Your task to perform on an android device: stop showing notifications on the lock screen Image 0: 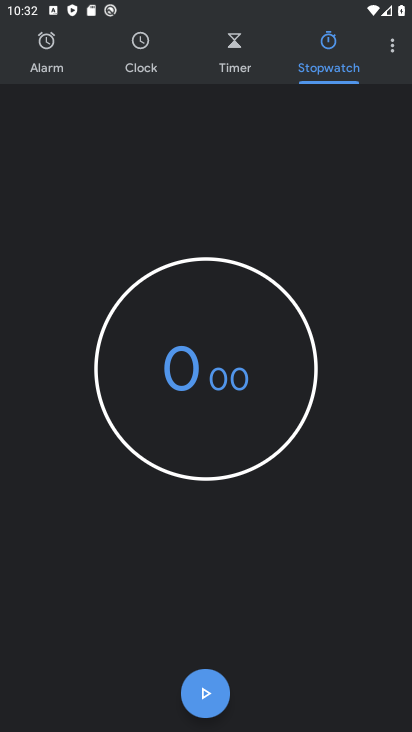
Step 0: press home button
Your task to perform on an android device: stop showing notifications on the lock screen Image 1: 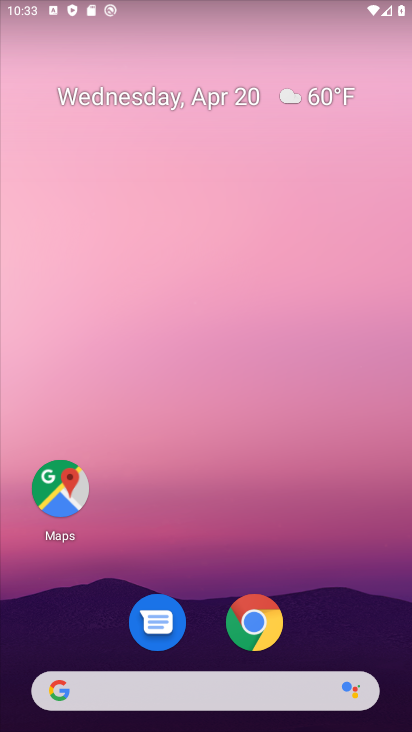
Step 1: drag from (369, 539) to (316, 125)
Your task to perform on an android device: stop showing notifications on the lock screen Image 2: 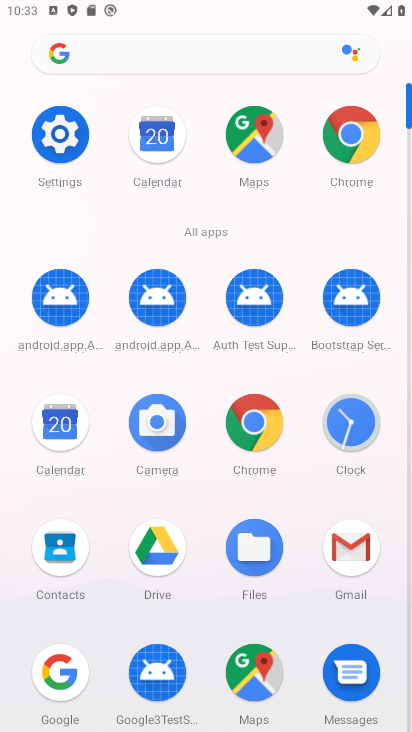
Step 2: click (64, 136)
Your task to perform on an android device: stop showing notifications on the lock screen Image 3: 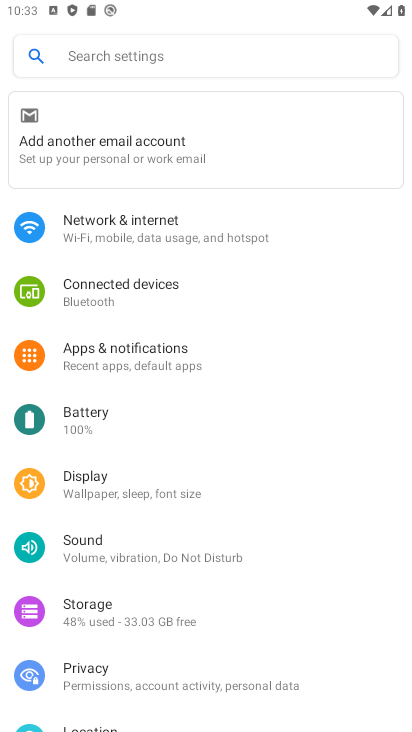
Step 3: click (118, 368)
Your task to perform on an android device: stop showing notifications on the lock screen Image 4: 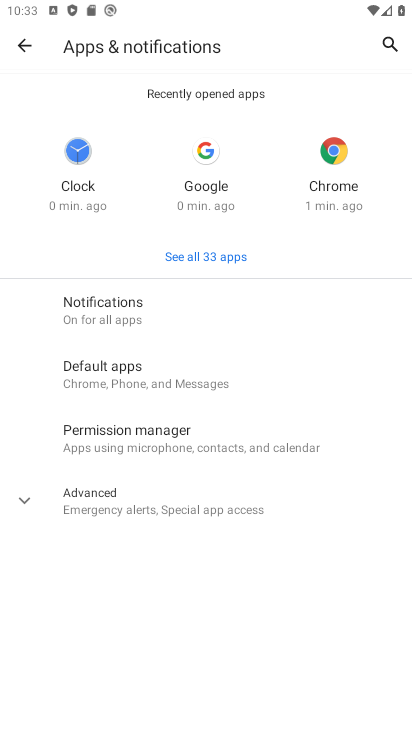
Step 4: click (113, 298)
Your task to perform on an android device: stop showing notifications on the lock screen Image 5: 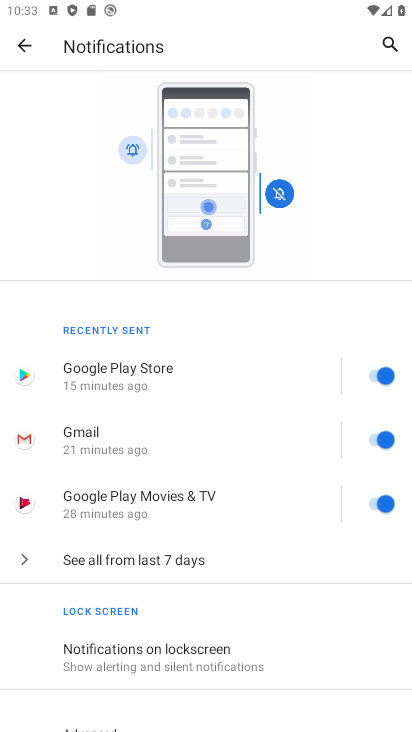
Step 5: drag from (200, 613) to (174, 277)
Your task to perform on an android device: stop showing notifications on the lock screen Image 6: 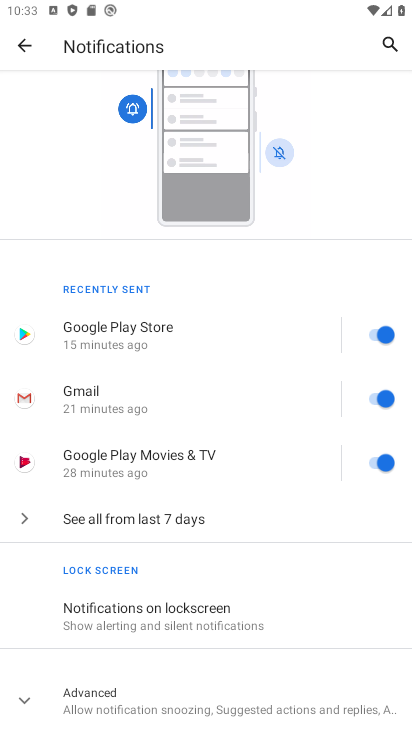
Step 6: click (131, 615)
Your task to perform on an android device: stop showing notifications on the lock screen Image 7: 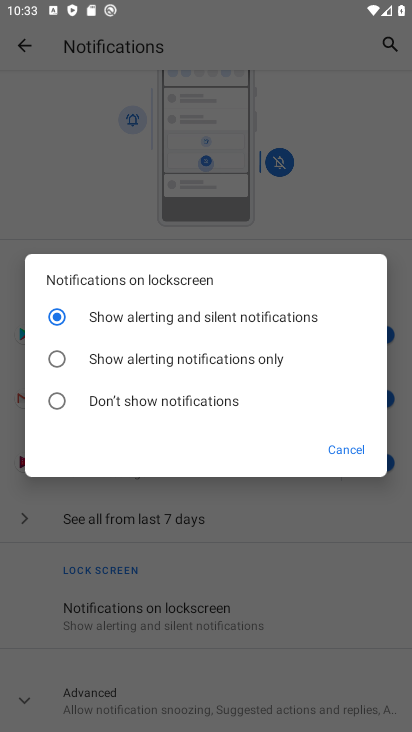
Step 7: click (51, 399)
Your task to perform on an android device: stop showing notifications on the lock screen Image 8: 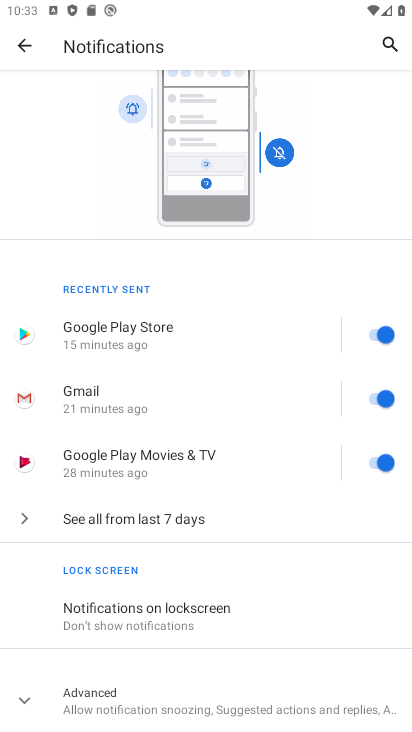
Step 8: task complete